Your task to perform on an android device: Open Android settings Image 0: 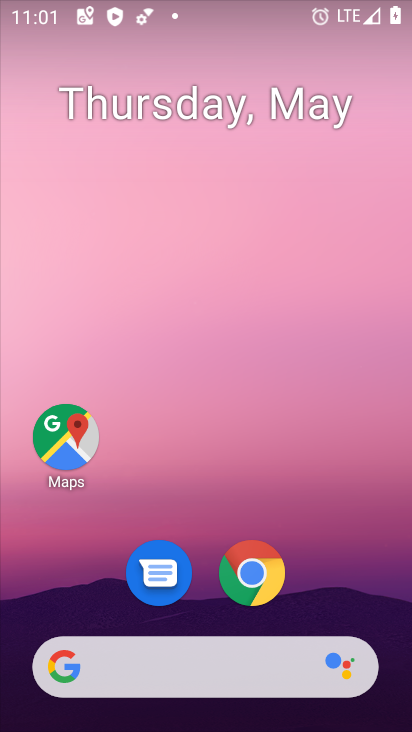
Step 0: drag from (204, 608) to (226, 143)
Your task to perform on an android device: Open Android settings Image 1: 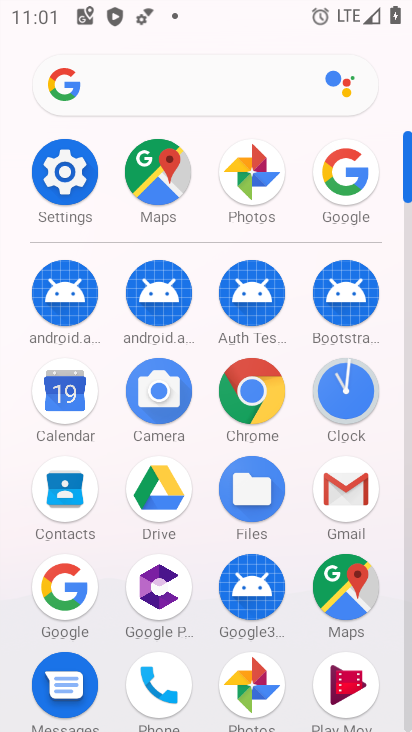
Step 1: click (71, 164)
Your task to perform on an android device: Open Android settings Image 2: 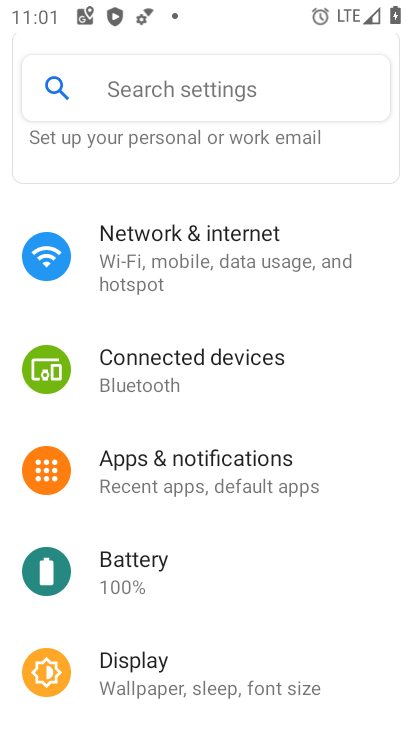
Step 2: task complete